Your task to perform on an android device: turn off improve location accuracy Image 0: 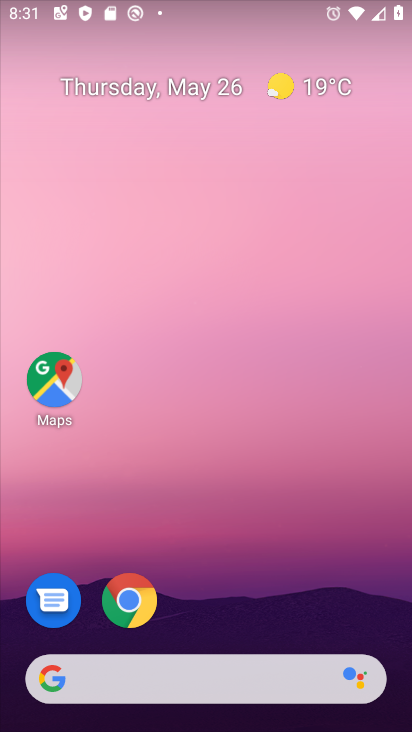
Step 0: press home button
Your task to perform on an android device: turn off improve location accuracy Image 1: 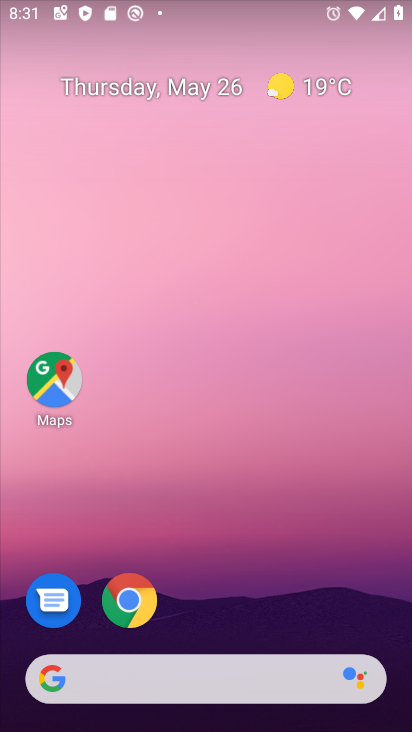
Step 1: drag from (235, 633) to (231, 268)
Your task to perform on an android device: turn off improve location accuracy Image 2: 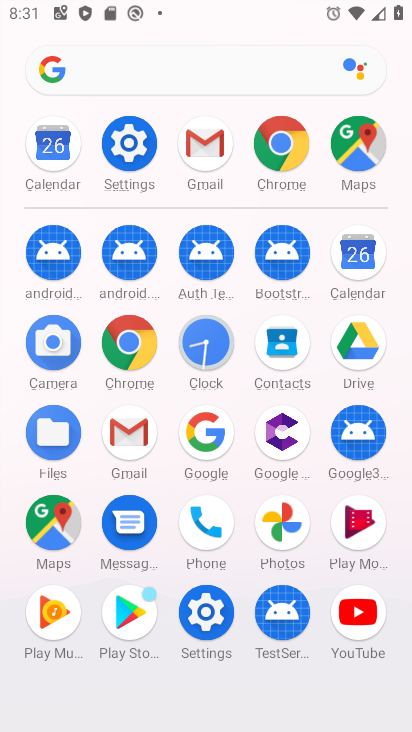
Step 2: click (129, 159)
Your task to perform on an android device: turn off improve location accuracy Image 3: 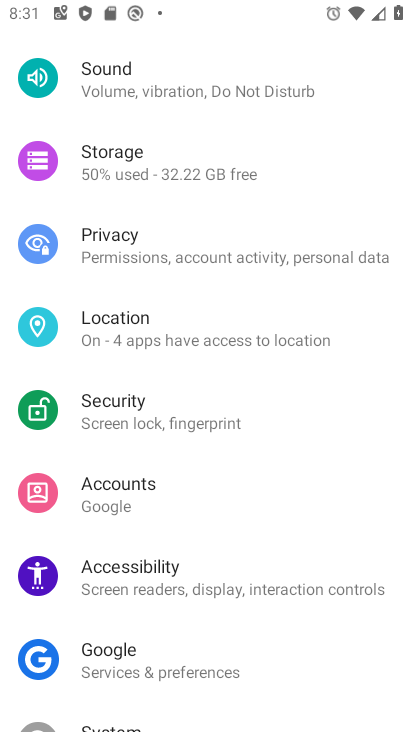
Step 3: click (126, 332)
Your task to perform on an android device: turn off improve location accuracy Image 4: 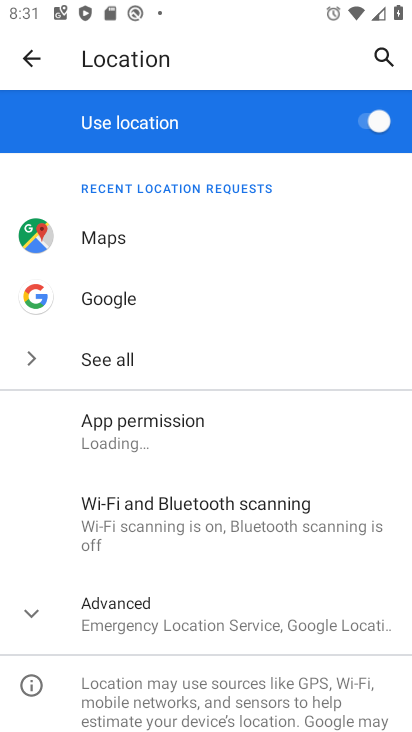
Step 4: click (98, 616)
Your task to perform on an android device: turn off improve location accuracy Image 5: 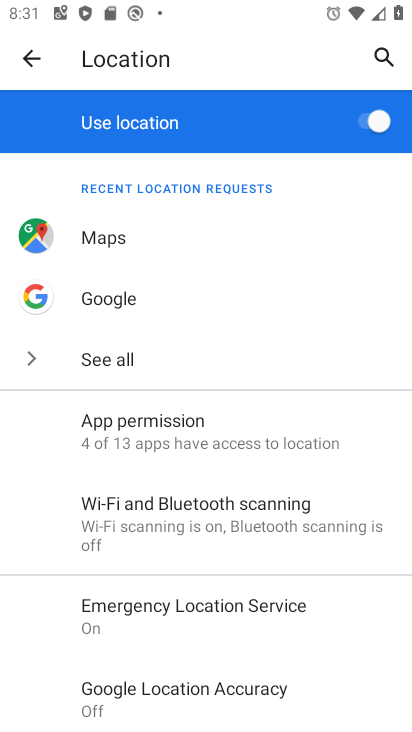
Step 5: click (213, 700)
Your task to perform on an android device: turn off improve location accuracy Image 6: 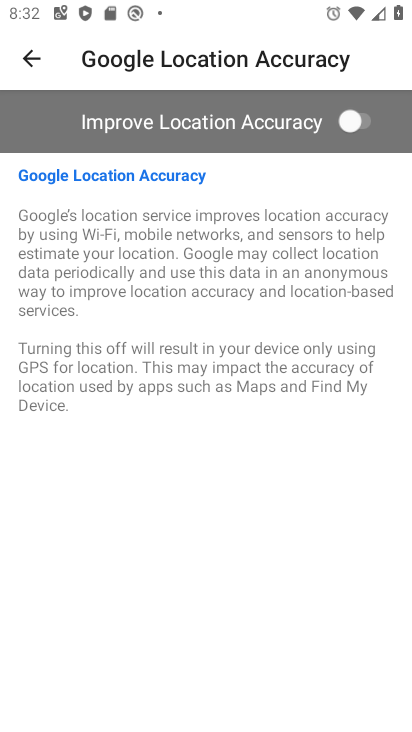
Step 6: task complete